Your task to perform on an android device: Show me popular videos on Youtube Image 0: 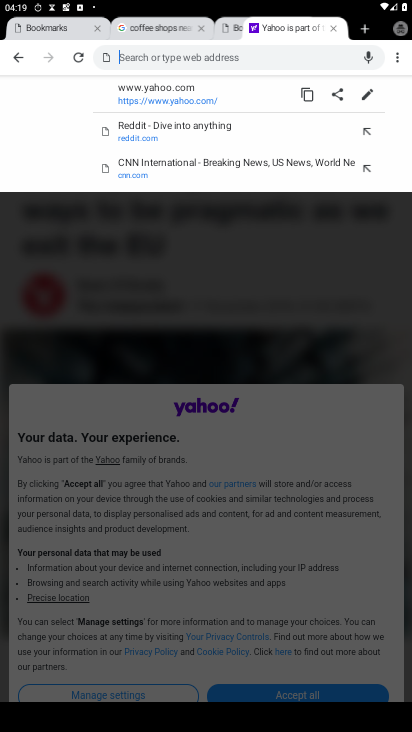
Step 0: drag from (225, 687) to (261, 131)
Your task to perform on an android device: Show me popular videos on Youtube Image 1: 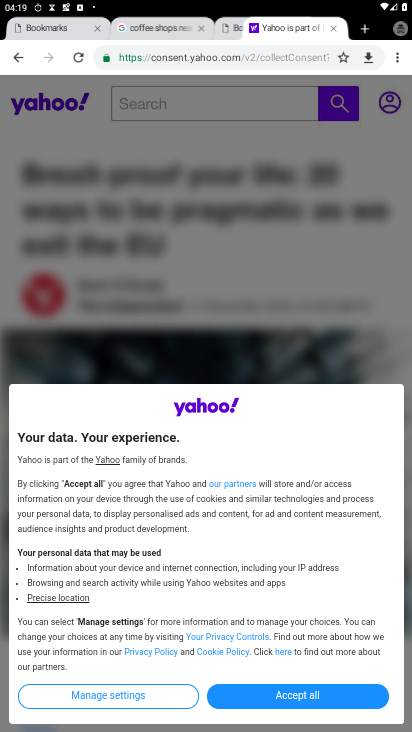
Step 1: press home button
Your task to perform on an android device: Show me popular videos on Youtube Image 2: 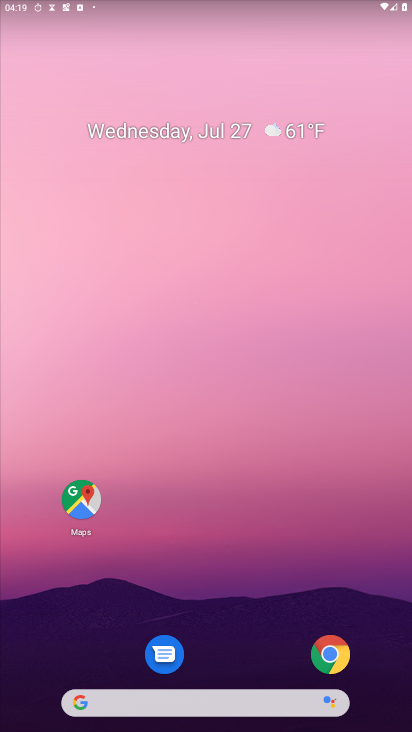
Step 2: drag from (282, 704) to (346, 87)
Your task to perform on an android device: Show me popular videos on Youtube Image 3: 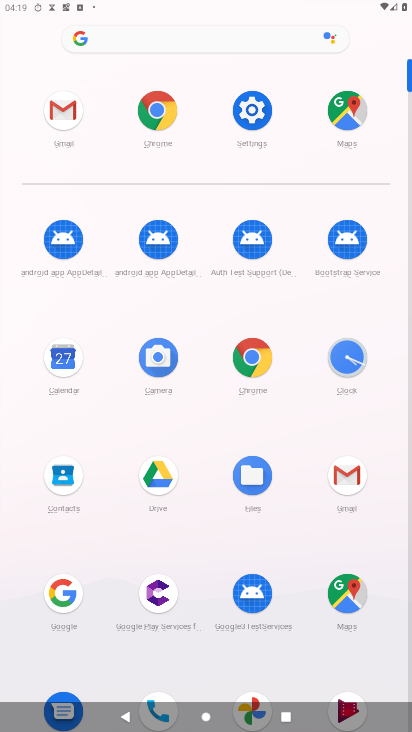
Step 3: drag from (336, 664) to (364, 353)
Your task to perform on an android device: Show me popular videos on Youtube Image 4: 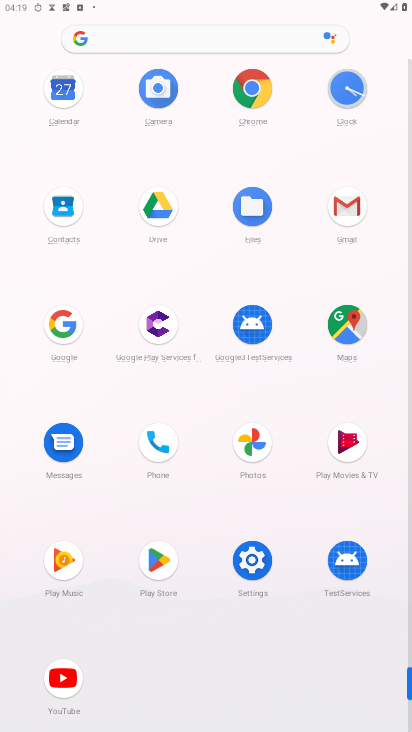
Step 4: click (59, 677)
Your task to perform on an android device: Show me popular videos on Youtube Image 5: 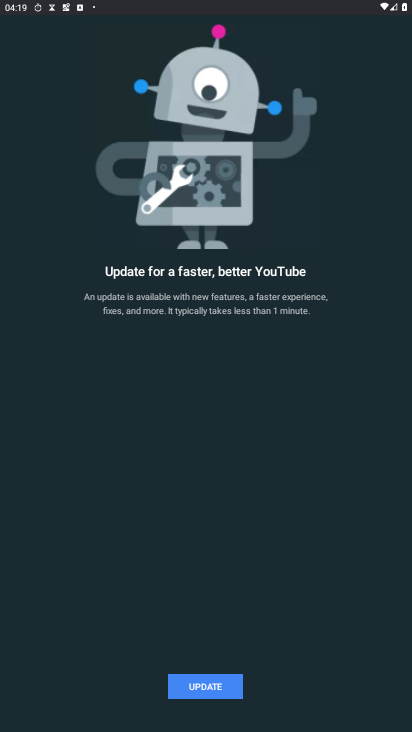
Step 5: click (234, 690)
Your task to perform on an android device: Show me popular videos on Youtube Image 6: 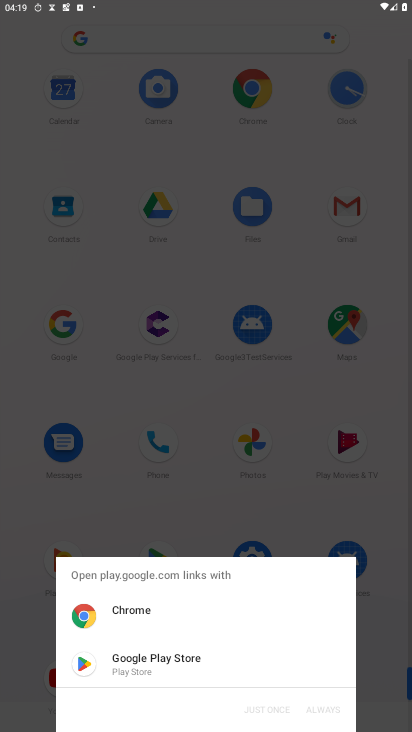
Step 6: click (206, 664)
Your task to perform on an android device: Show me popular videos on Youtube Image 7: 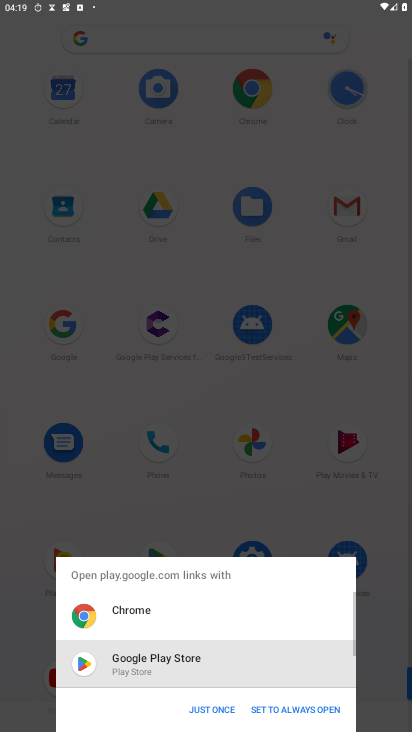
Step 7: click (207, 710)
Your task to perform on an android device: Show me popular videos on Youtube Image 8: 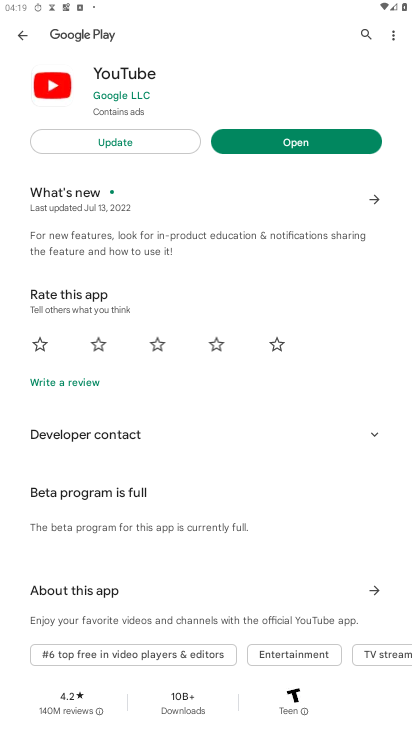
Step 8: click (98, 141)
Your task to perform on an android device: Show me popular videos on Youtube Image 9: 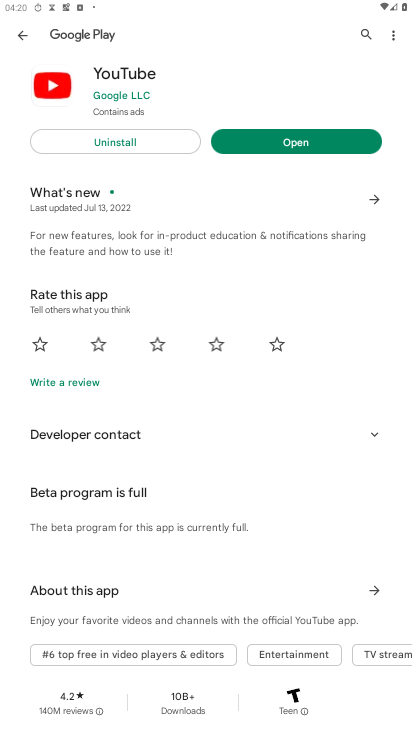
Step 9: click (281, 144)
Your task to perform on an android device: Show me popular videos on Youtube Image 10: 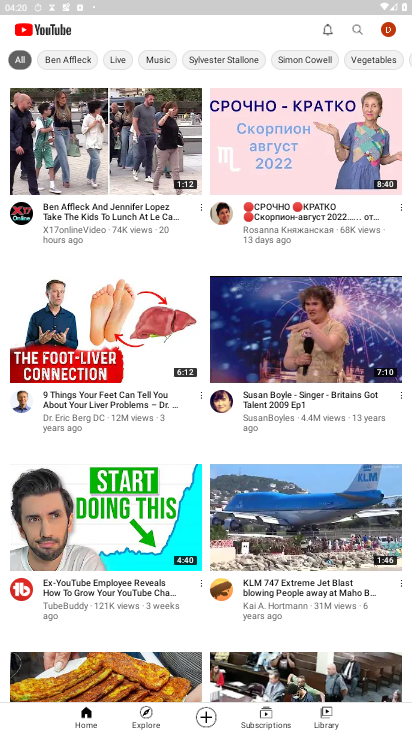
Step 10: task complete